Your task to perform on an android device: Open location settings Image 0: 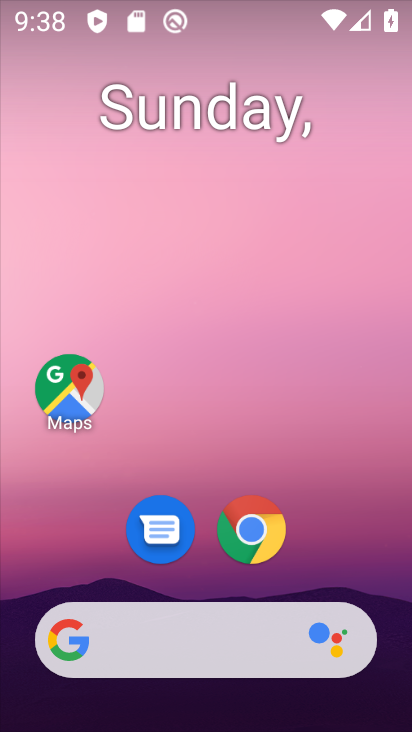
Step 0: drag from (325, 569) to (204, 16)
Your task to perform on an android device: Open location settings Image 1: 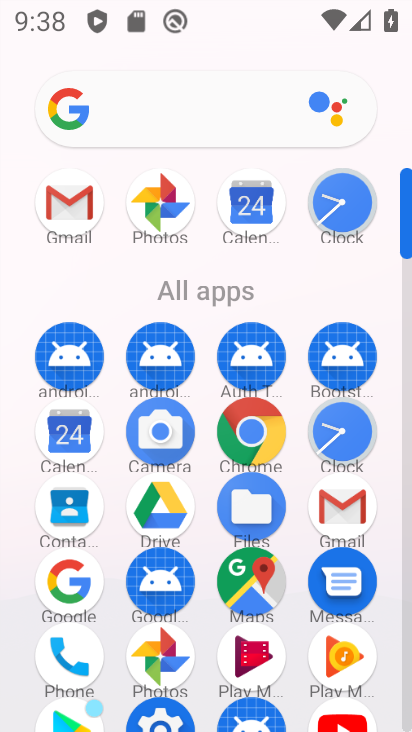
Step 1: click (159, 718)
Your task to perform on an android device: Open location settings Image 2: 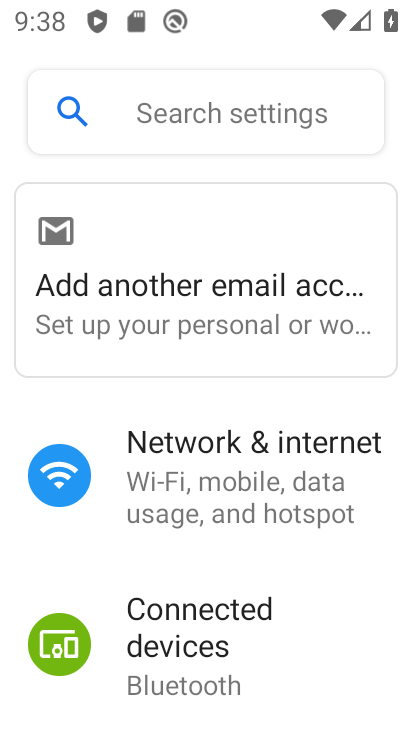
Step 2: drag from (225, 624) to (176, 61)
Your task to perform on an android device: Open location settings Image 3: 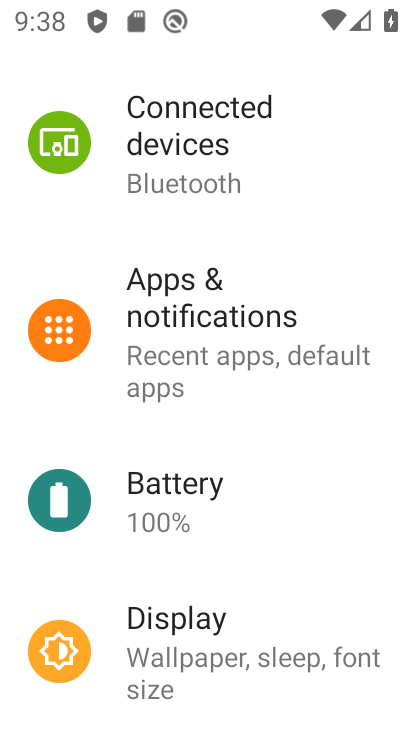
Step 3: drag from (234, 645) to (212, 107)
Your task to perform on an android device: Open location settings Image 4: 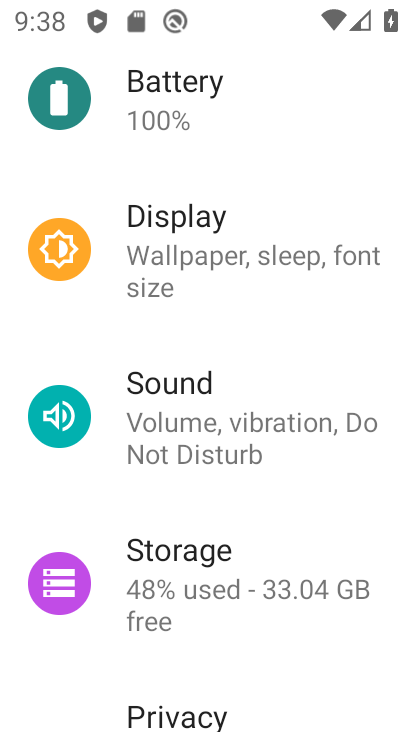
Step 4: drag from (155, 657) to (181, 277)
Your task to perform on an android device: Open location settings Image 5: 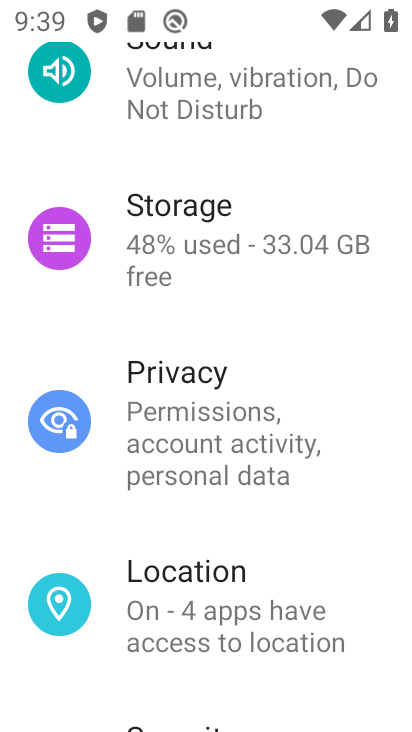
Step 5: click (203, 621)
Your task to perform on an android device: Open location settings Image 6: 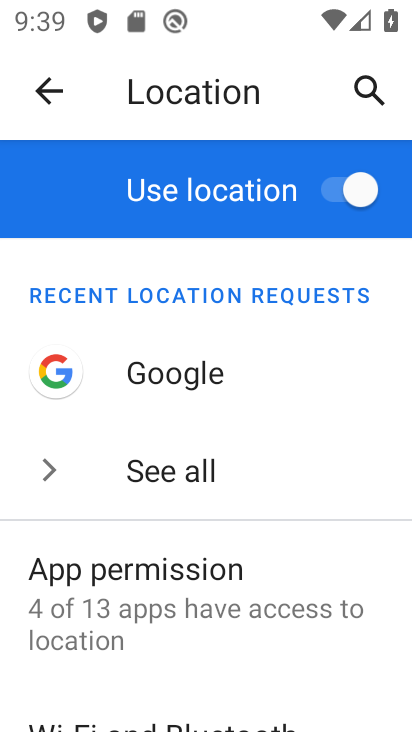
Step 6: task complete